Your task to perform on an android device: move a message to another label in the gmail app Image 0: 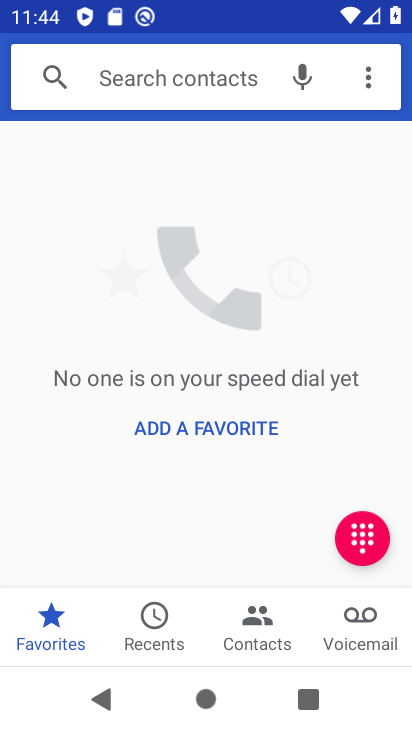
Step 0: press home button
Your task to perform on an android device: move a message to another label in the gmail app Image 1: 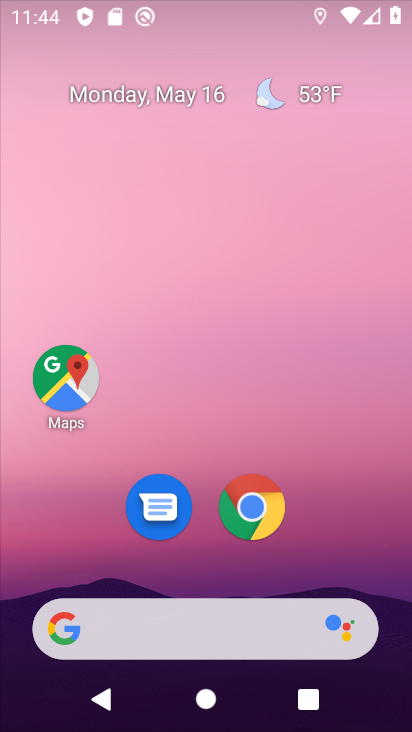
Step 1: drag from (213, 602) to (237, 211)
Your task to perform on an android device: move a message to another label in the gmail app Image 2: 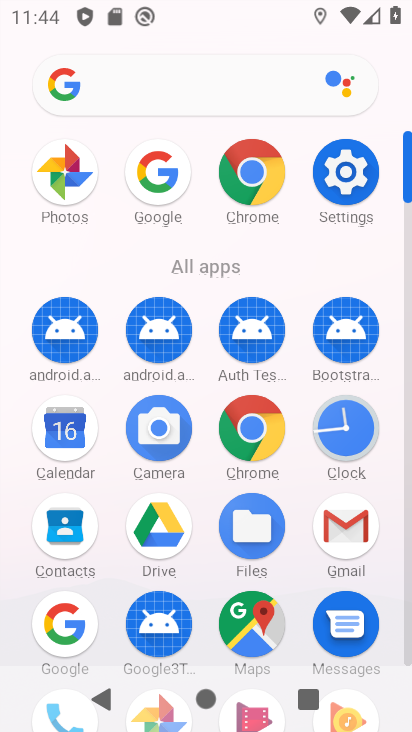
Step 2: click (348, 534)
Your task to perform on an android device: move a message to another label in the gmail app Image 3: 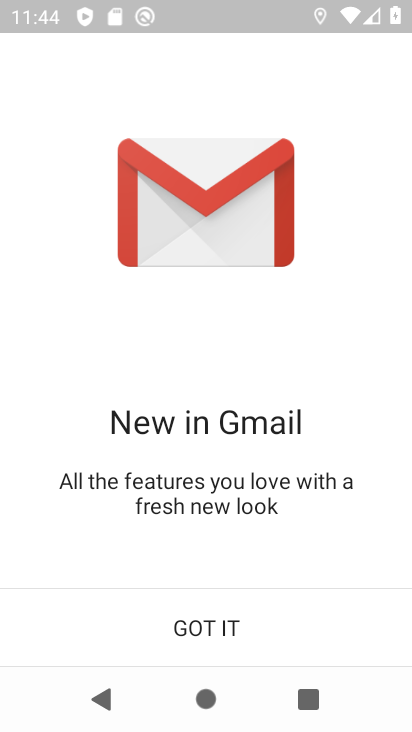
Step 3: click (214, 635)
Your task to perform on an android device: move a message to another label in the gmail app Image 4: 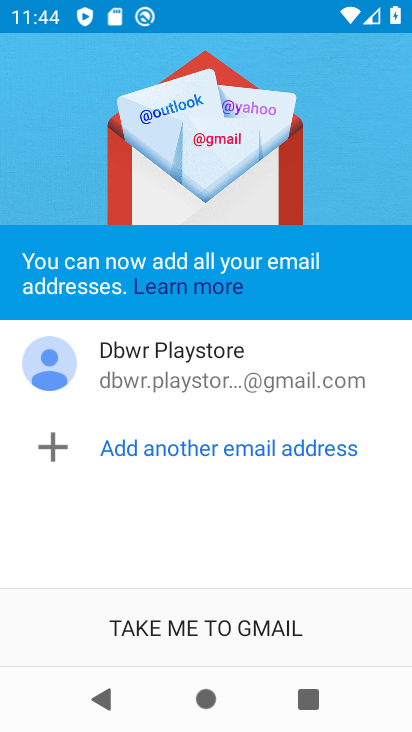
Step 4: click (213, 621)
Your task to perform on an android device: move a message to another label in the gmail app Image 5: 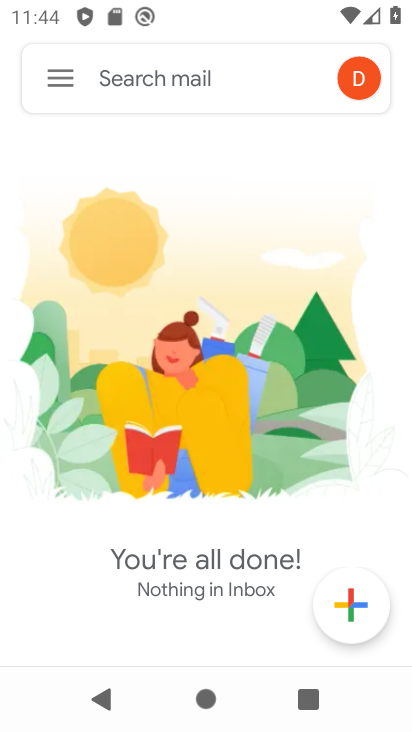
Step 5: click (47, 88)
Your task to perform on an android device: move a message to another label in the gmail app Image 6: 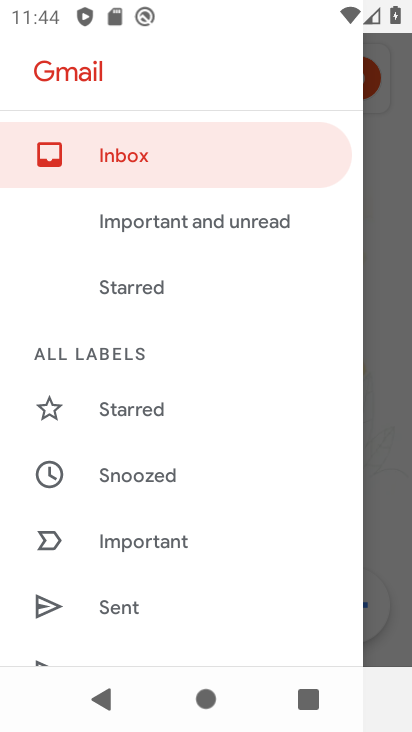
Step 6: drag from (170, 472) to (197, 124)
Your task to perform on an android device: move a message to another label in the gmail app Image 7: 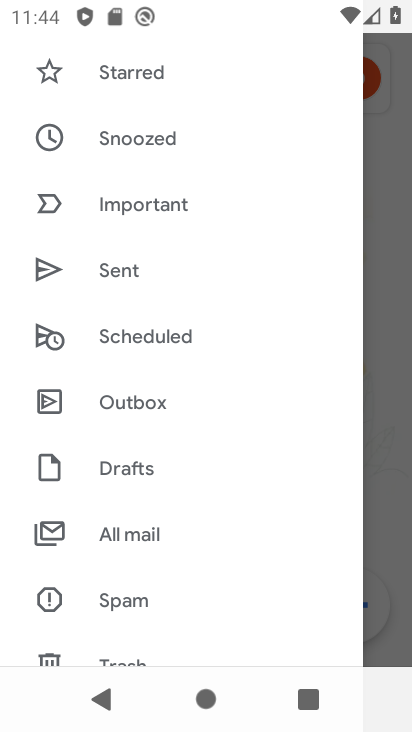
Step 7: click (121, 541)
Your task to perform on an android device: move a message to another label in the gmail app Image 8: 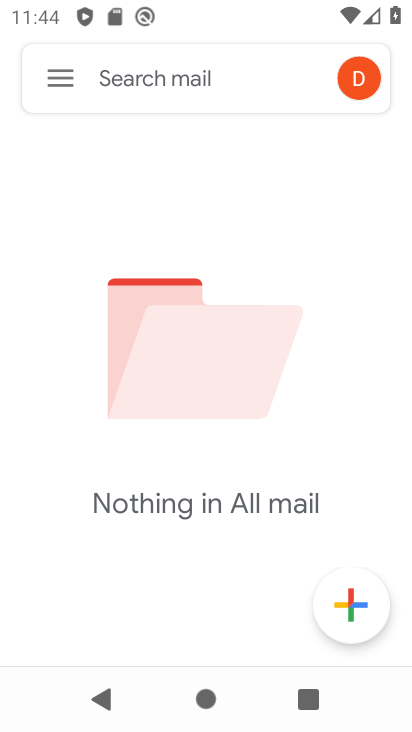
Step 8: task complete